Your task to perform on an android device: turn on notifications settings in the gmail app Image 0: 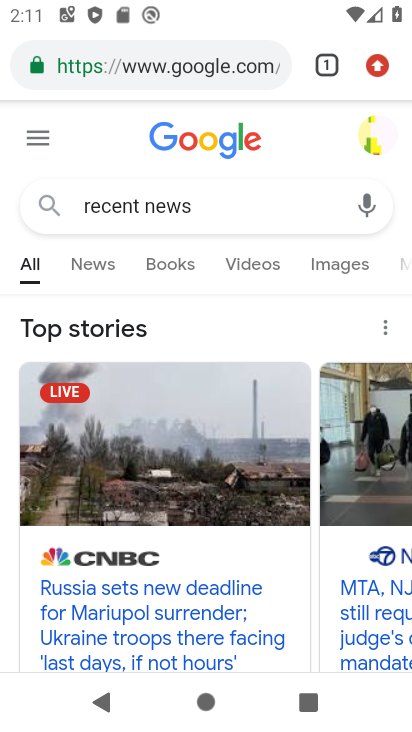
Step 0: drag from (257, 626) to (287, 458)
Your task to perform on an android device: turn on notifications settings in the gmail app Image 1: 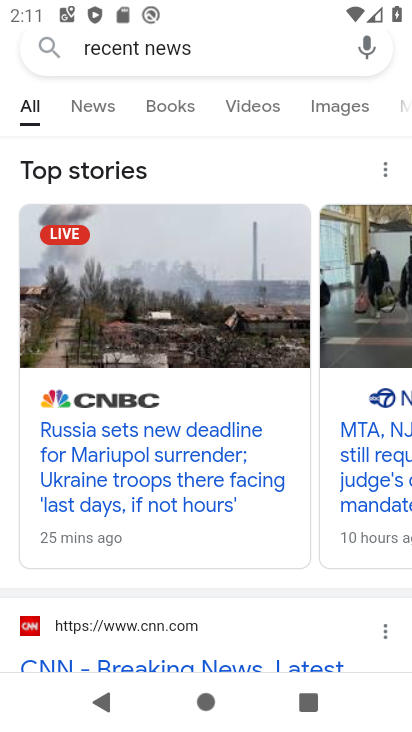
Step 1: press home button
Your task to perform on an android device: turn on notifications settings in the gmail app Image 2: 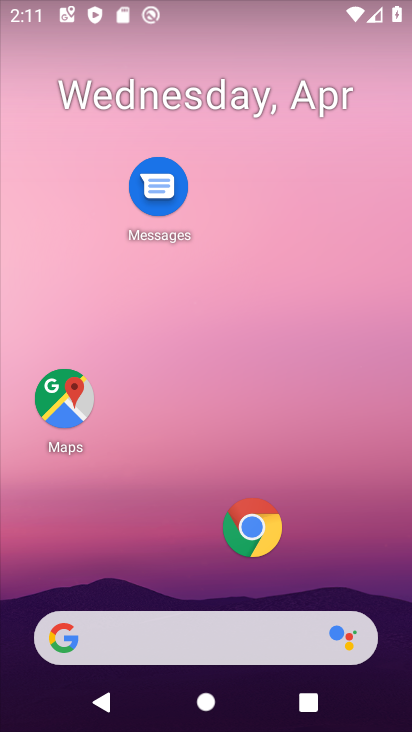
Step 2: drag from (128, 533) to (159, 229)
Your task to perform on an android device: turn on notifications settings in the gmail app Image 3: 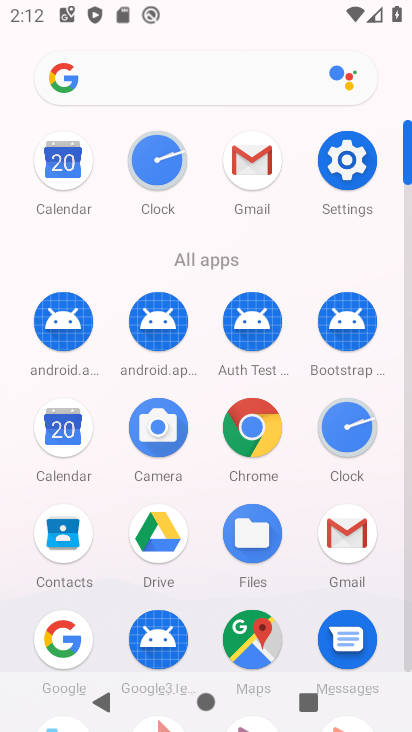
Step 3: click (346, 566)
Your task to perform on an android device: turn on notifications settings in the gmail app Image 4: 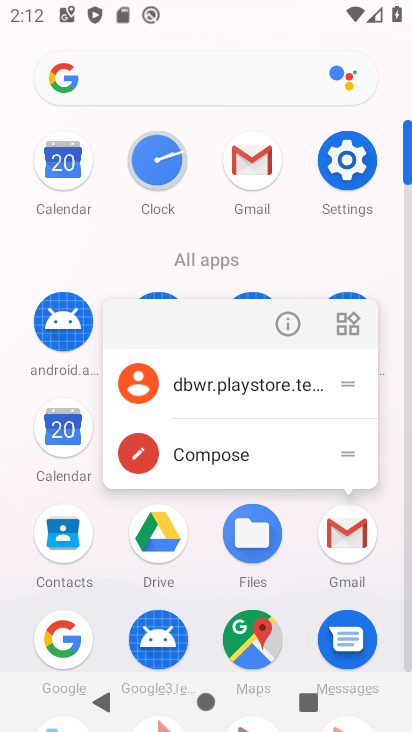
Step 4: click (349, 527)
Your task to perform on an android device: turn on notifications settings in the gmail app Image 5: 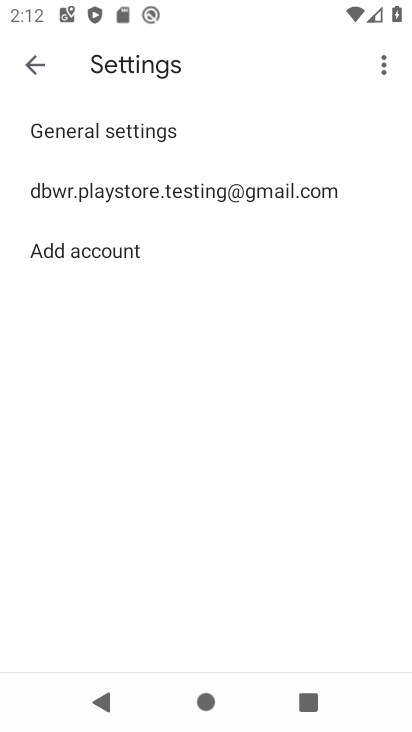
Step 5: click (104, 195)
Your task to perform on an android device: turn on notifications settings in the gmail app Image 6: 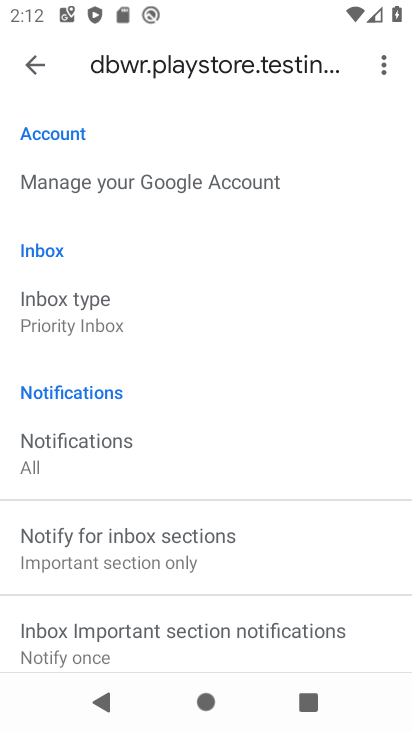
Step 6: drag from (202, 546) to (122, 346)
Your task to perform on an android device: turn on notifications settings in the gmail app Image 7: 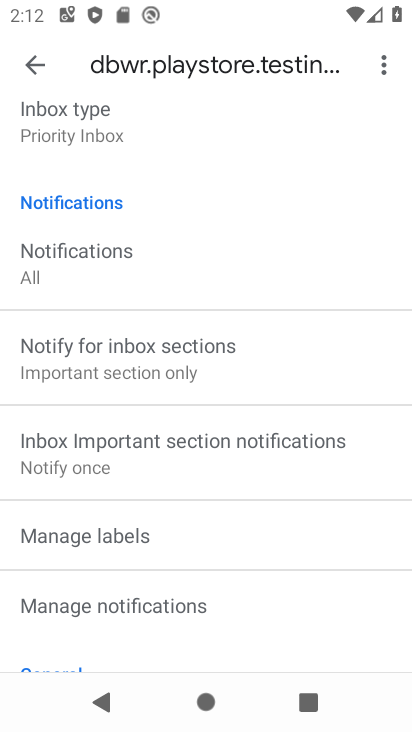
Step 7: click (32, 273)
Your task to perform on an android device: turn on notifications settings in the gmail app Image 8: 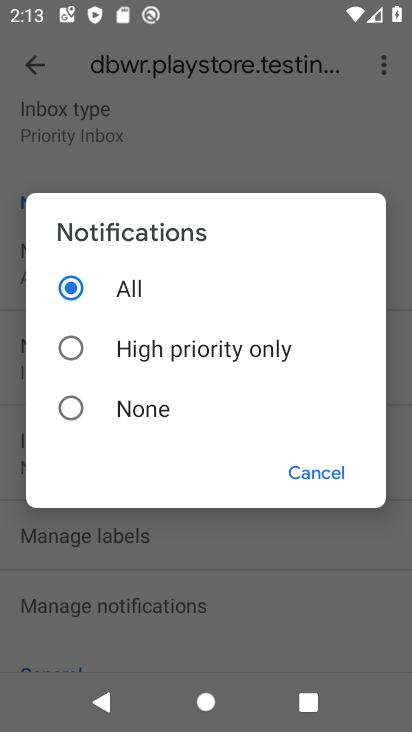
Step 8: task complete